Your task to perform on an android device: open app "VLC for Android" Image 0: 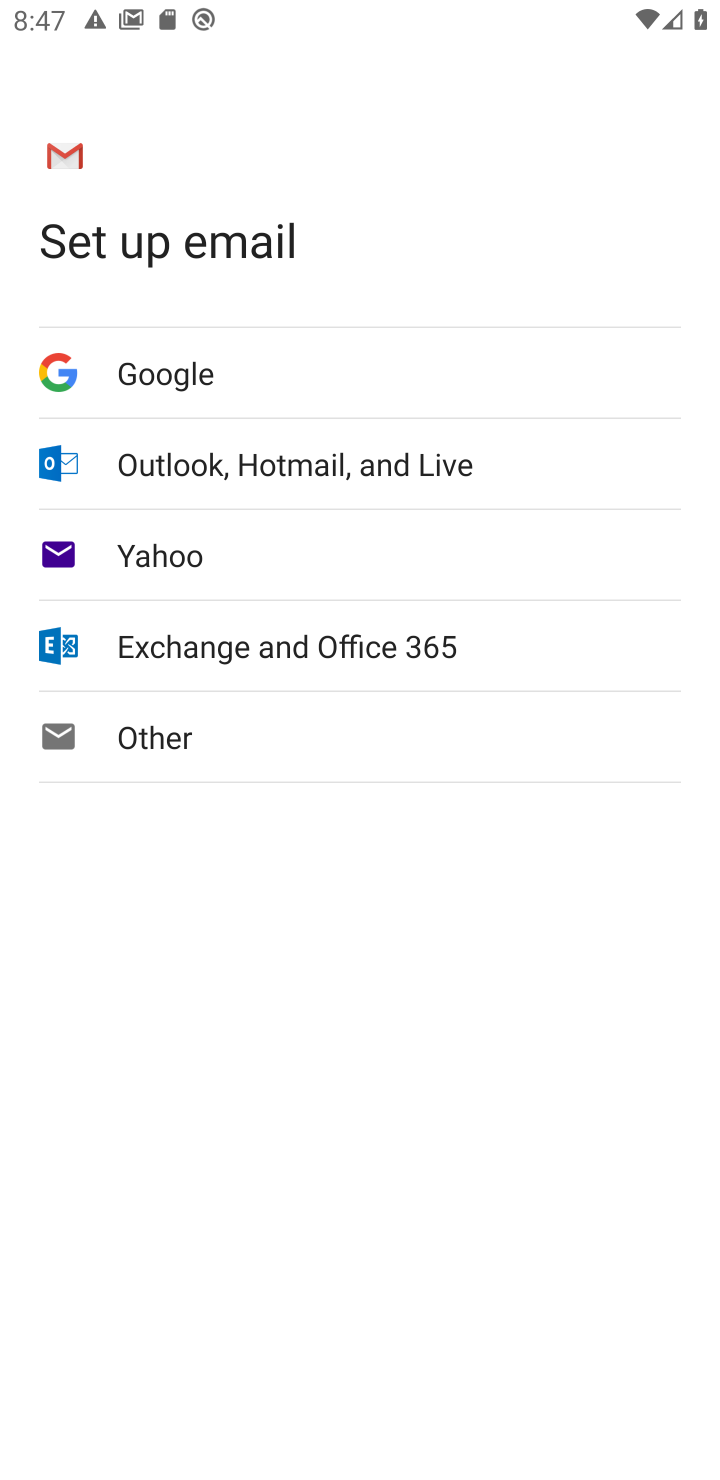
Step 0: press home button
Your task to perform on an android device: open app "VLC for Android" Image 1: 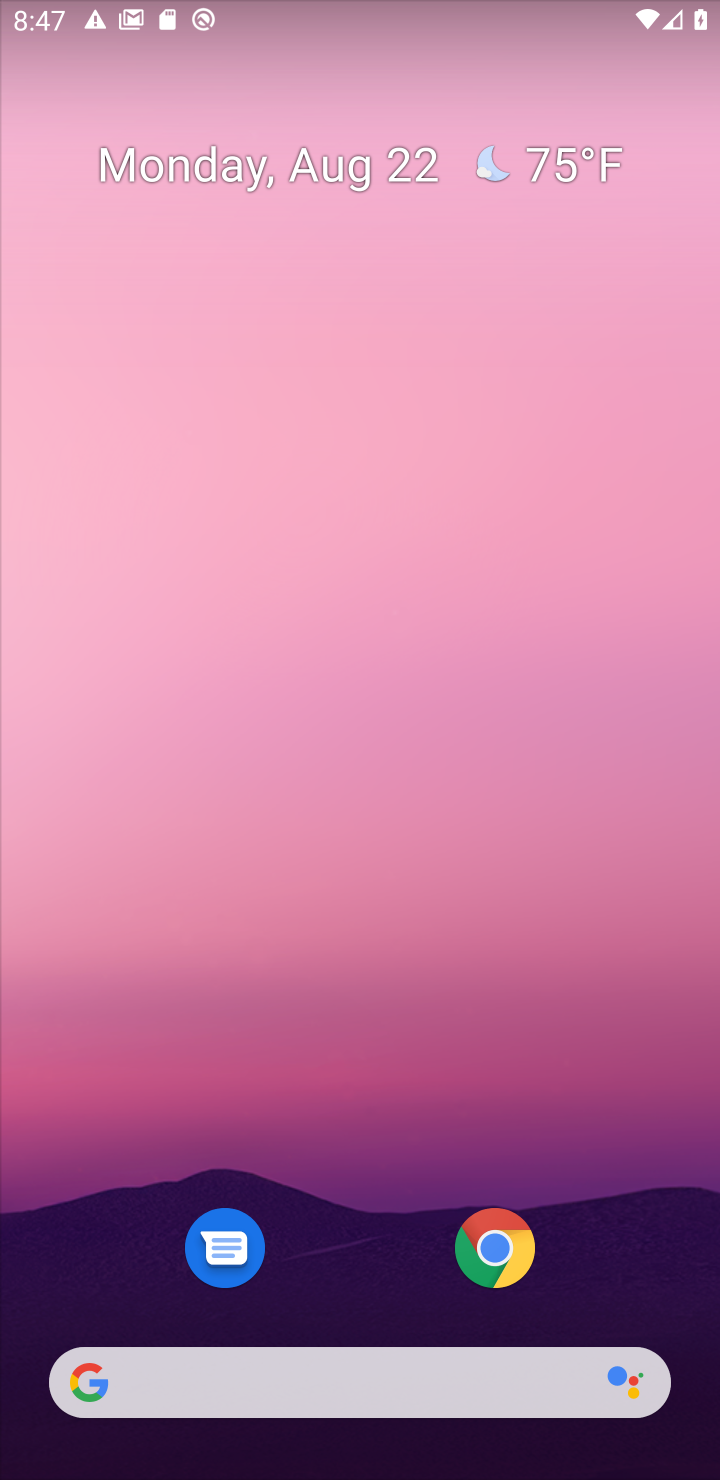
Step 1: drag from (352, 1297) to (352, 122)
Your task to perform on an android device: open app "VLC for Android" Image 2: 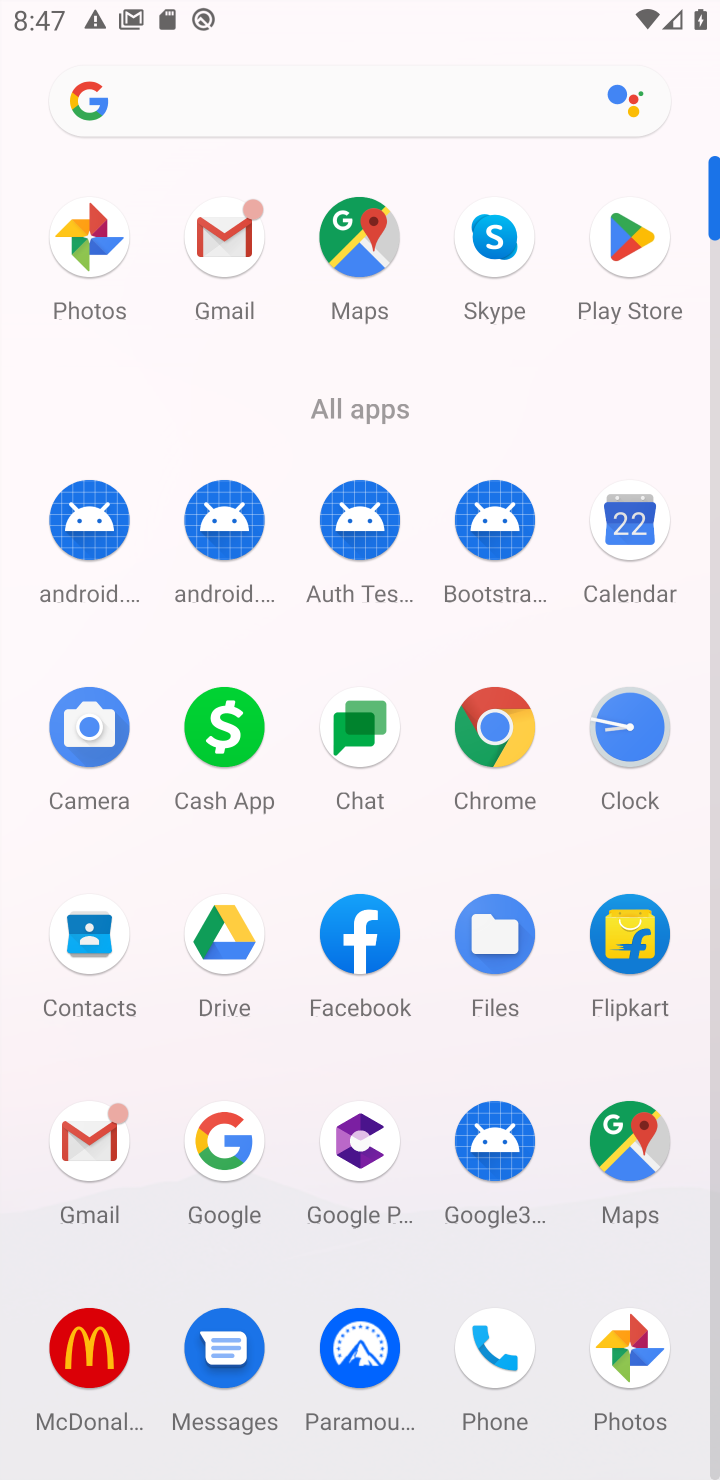
Step 2: click (629, 231)
Your task to perform on an android device: open app "VLC for Android" Image 3: 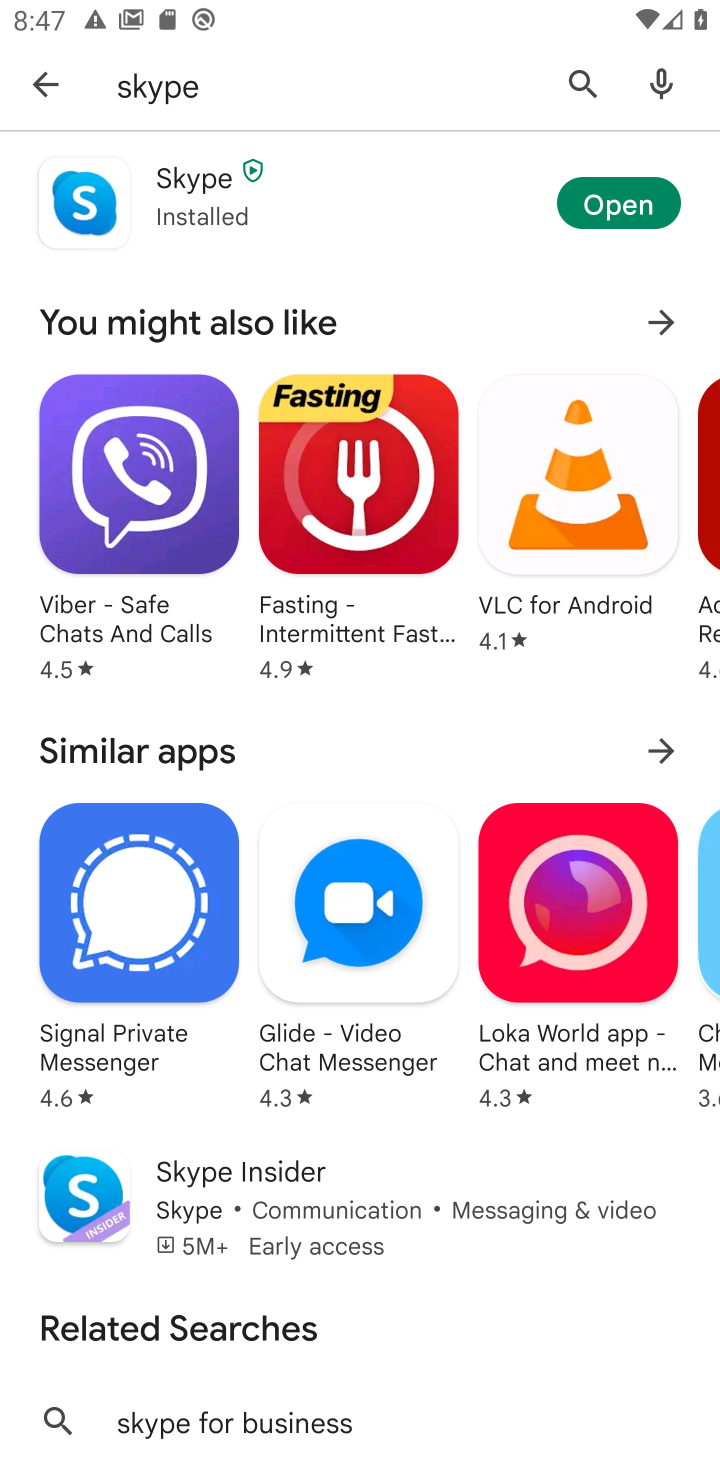
Step 3: click (584, 77)
Your task to perform on an android device: open app "VLC for Android" Image 4: 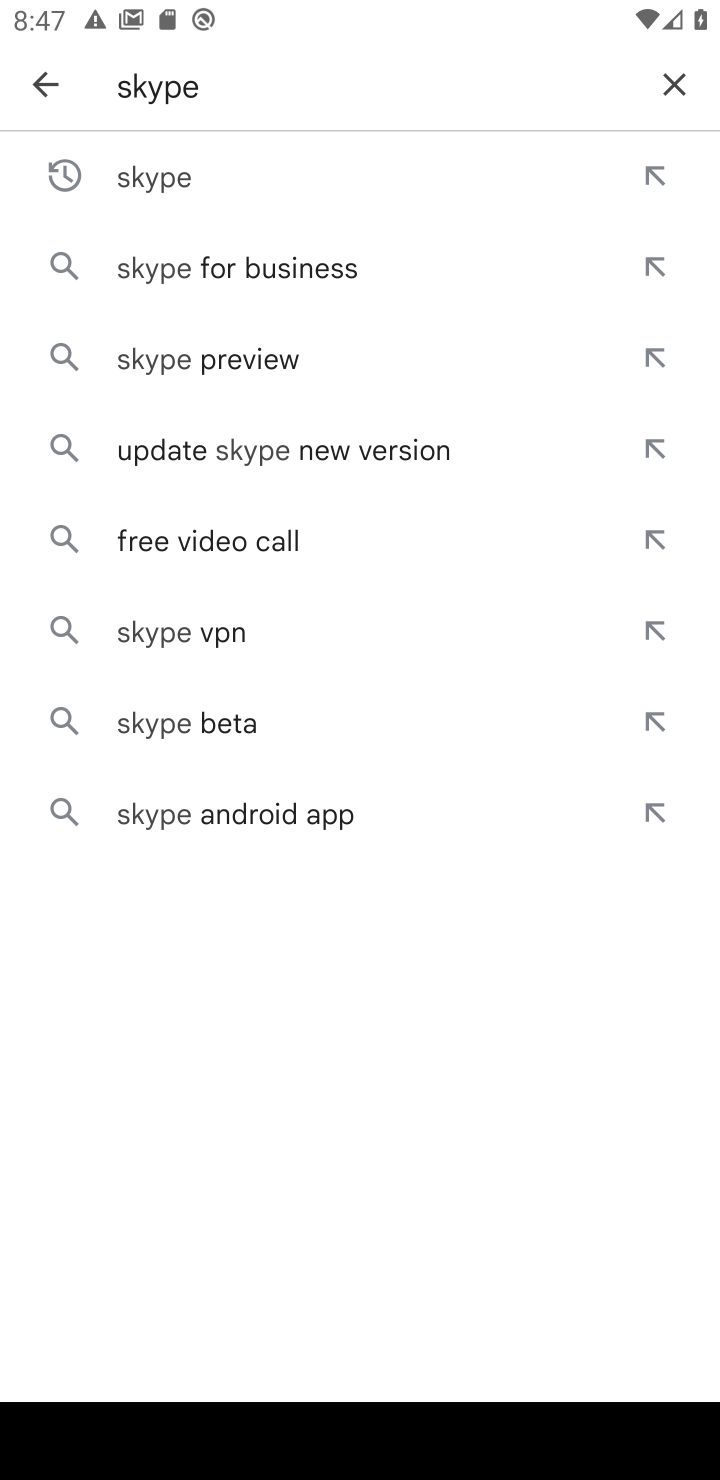
Step 4: click (680, 83)
Your task to perform on an android device: open app "VLC for Android" Image 5: 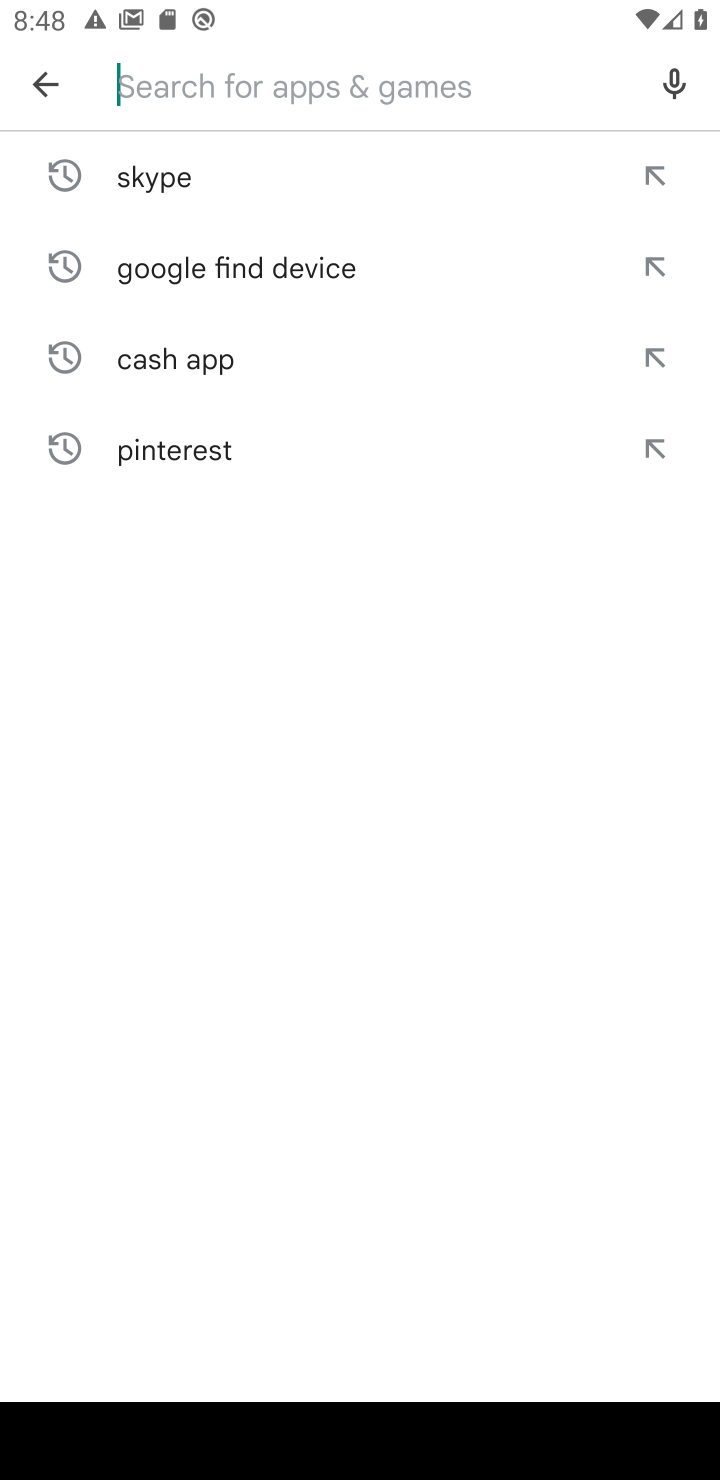
Step 5: type "VLC for Android"
Your task to perform on an android device: open app "VLC for Android" Image 6: 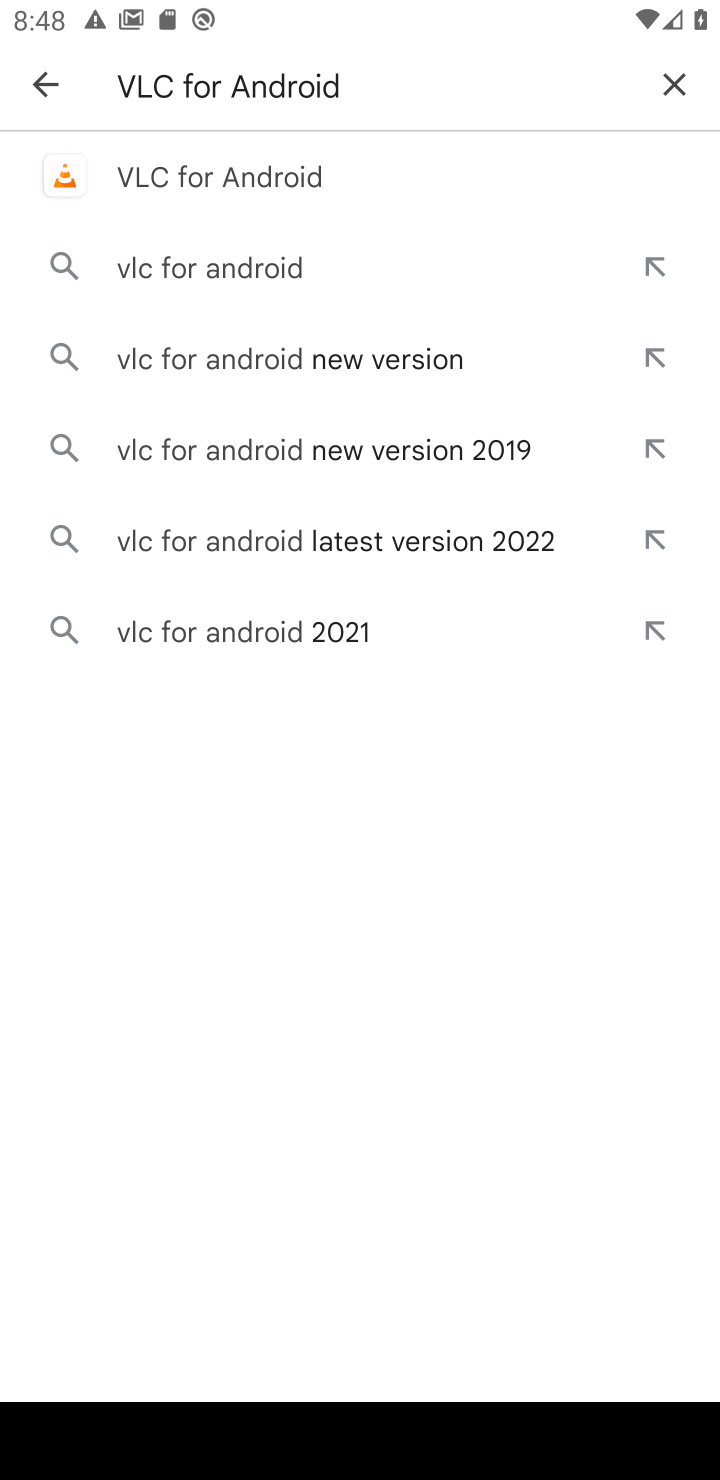
Step 6: click (248, 167)
Your task to perform on an android device: open app "VLC for Android" Image 7: 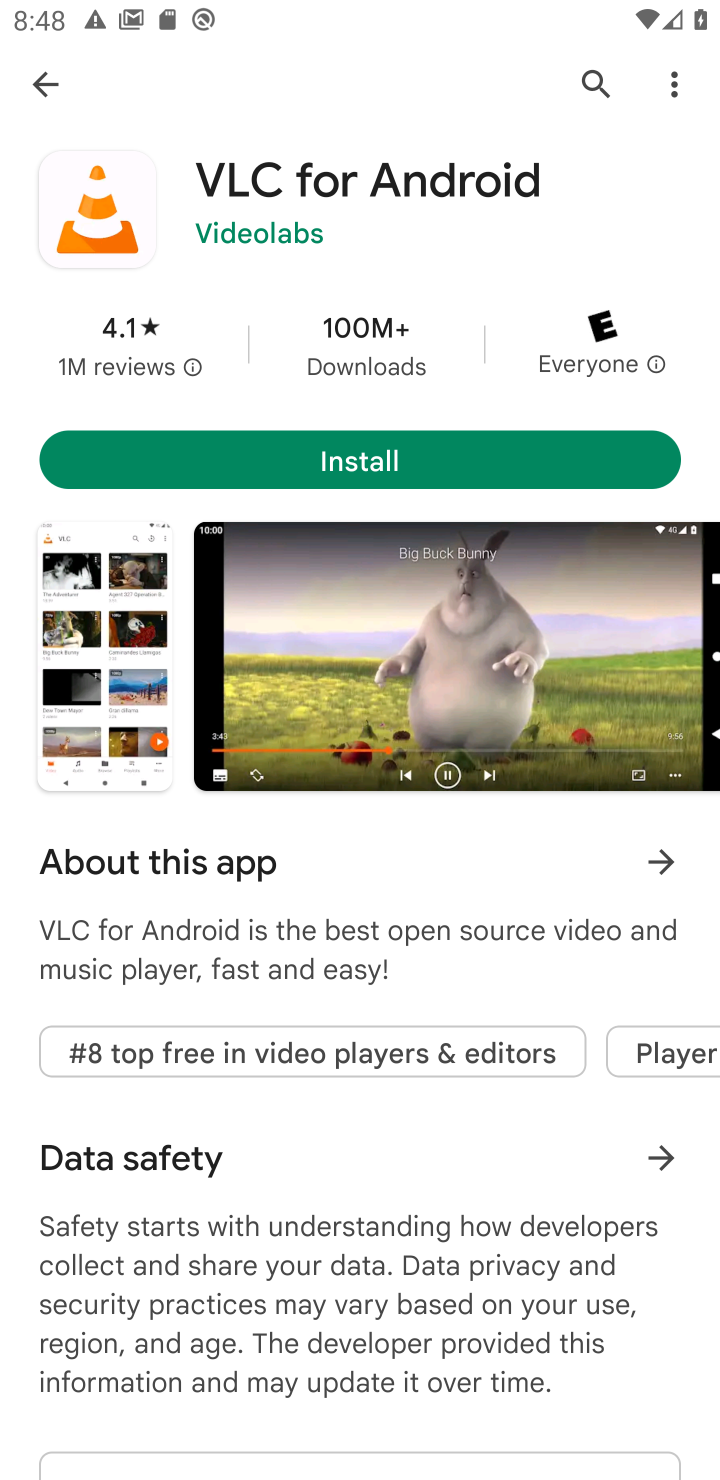
Step 7: task complete